Your task to perform on an android device: turn on the 12-hour format for clock Image 0: 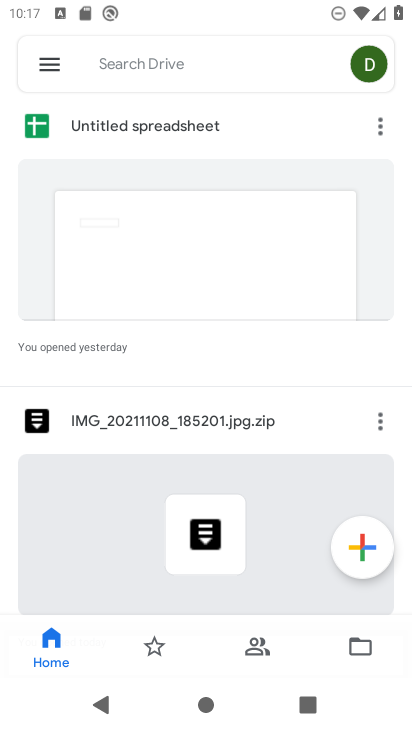
Step 0: press home button
Your task to perform on an android device: turn on the 12-hour format for clock Image 1: 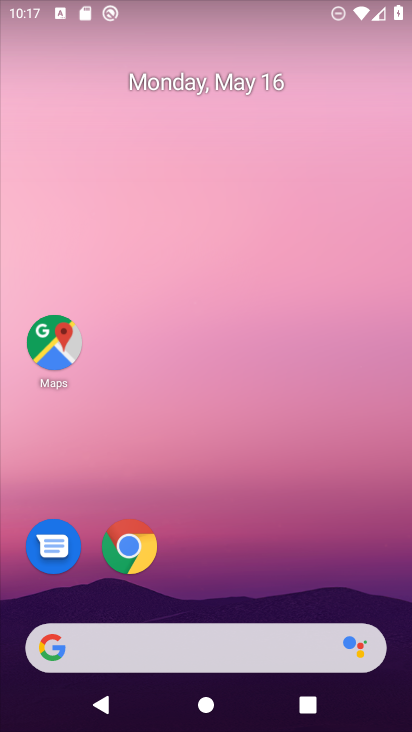
Step 1: drag from (166, 596) to (123, 32)
Your task to perform on an android device: turn on the 12-hour format for clock Image 2: 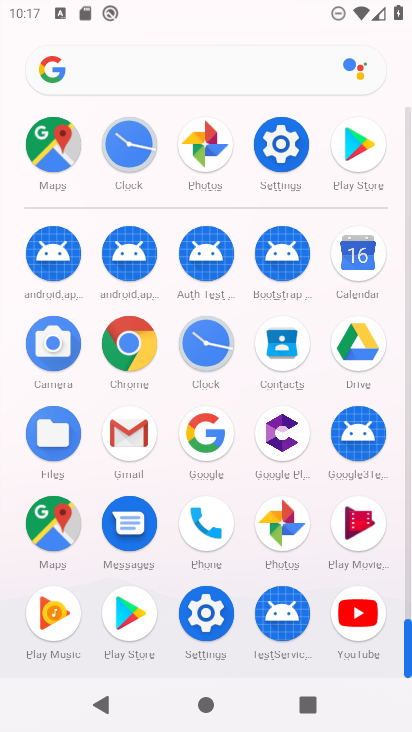
Step 2: click (220, 339)
Your task to perform on an android device: turn on the 12-hour format for clock Image 3: 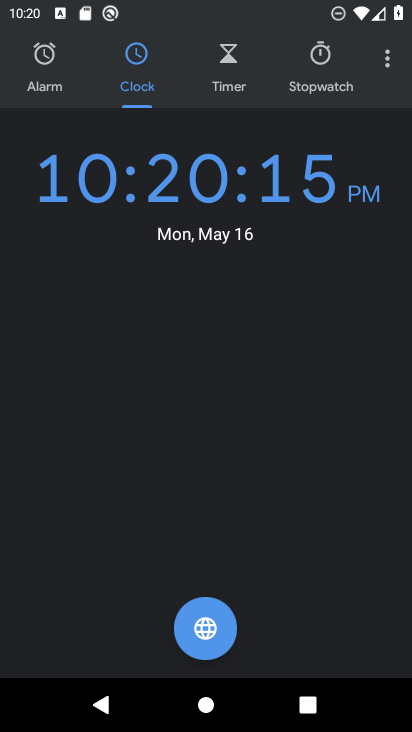
Step 3: task complete